Your task to perform on an android device: turn off location history Image 0: 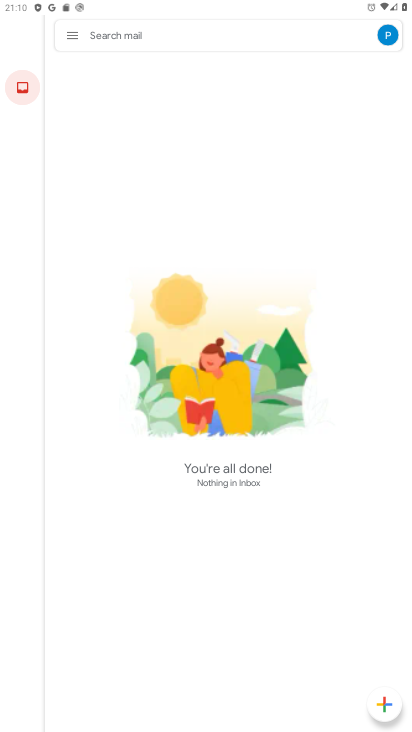
Step 0: press home button
Your task to perform on an android device: turn off location history Image 1: 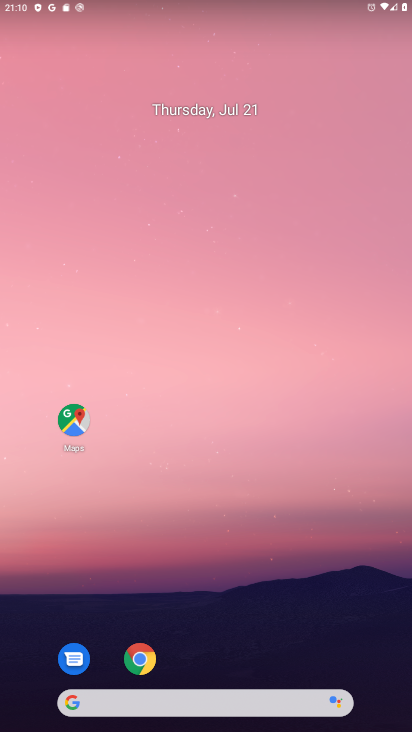
Step 1: drag from (264, 649) to (209, 2)
Your task to perform on an android device: turn off location history Image 2: 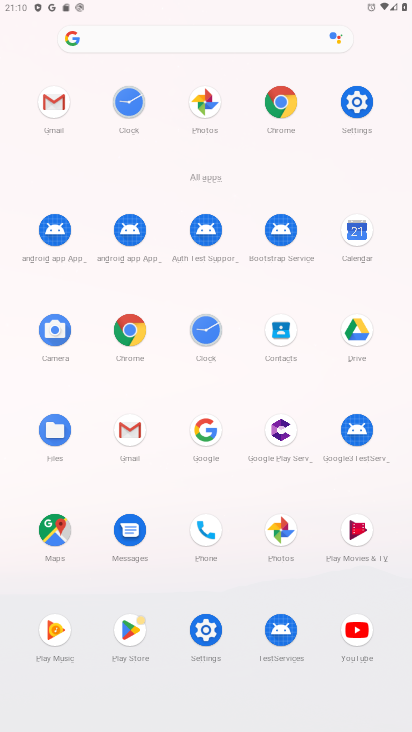
Step 2: click (47, 530)
Your task to perform on an android device: turn off location history Image 3: 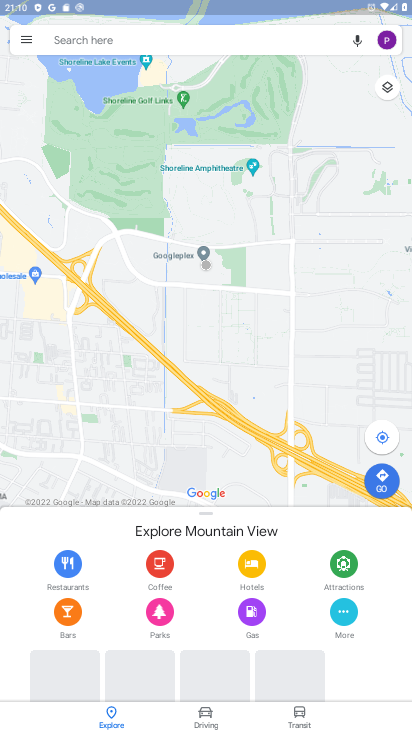
Step 3: click (23, 36)
Your task to perform on an android device: turn off location history Image 4: 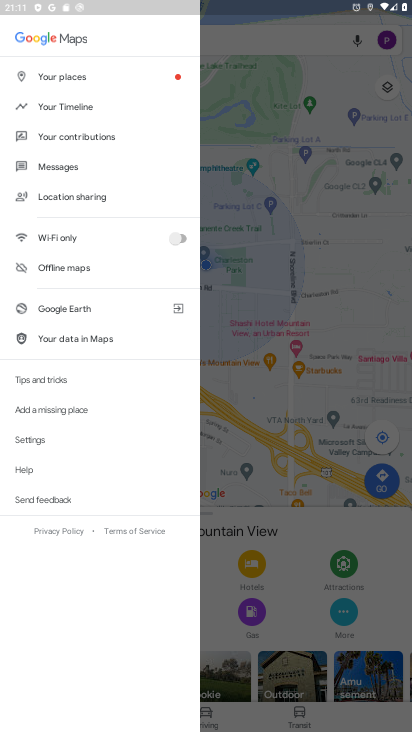
Step 4: click (56, 105)
Your task to perform on an android device: turn off location history Image 5: 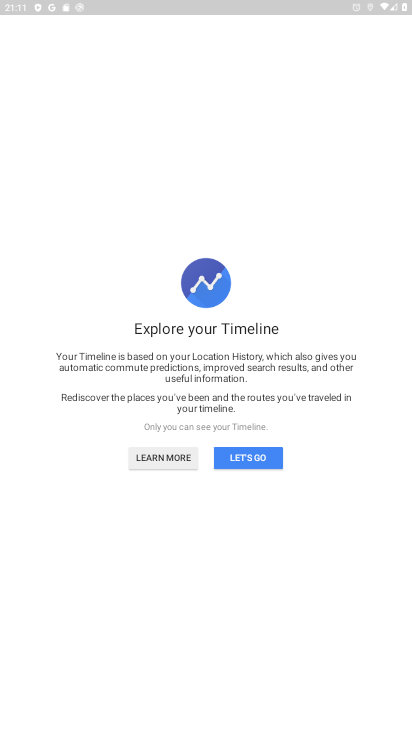
Step 5: click (271, 462)
Your task to perform on an android device: turn off location history Image 6: 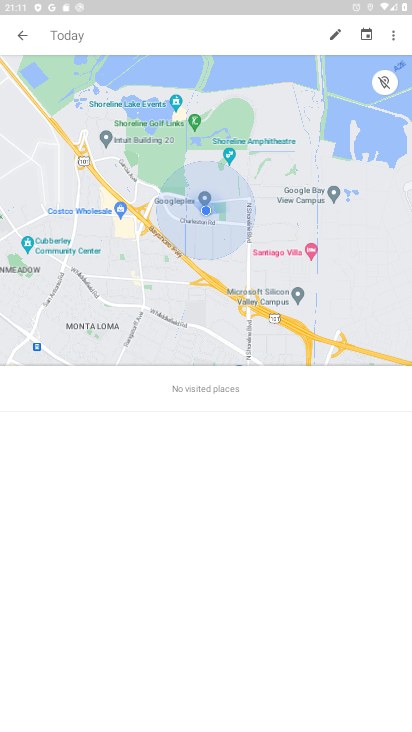
Step 6: click (393, 34)
Your task to perform on an android device: turn off location history Image 7: 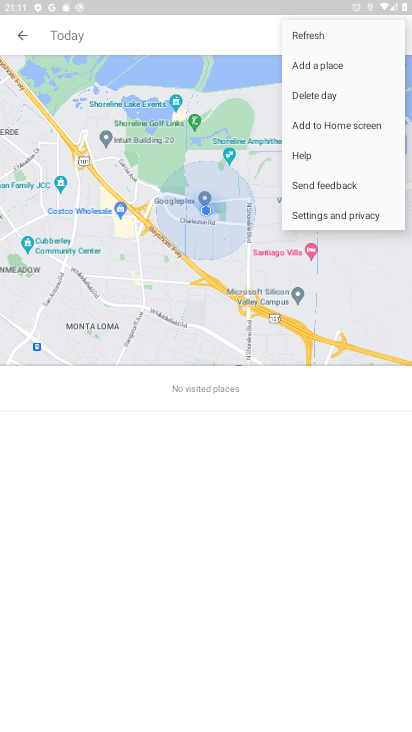
Step 7: click (302, 212)
Your task to perform on an android device: turn off location history Image 8: 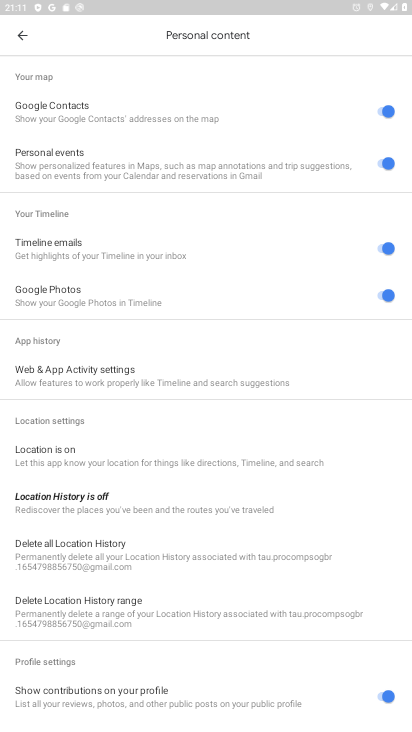
Step 8: click (69, 501)
Your task to perform on an android device: turn off location history Image 9: 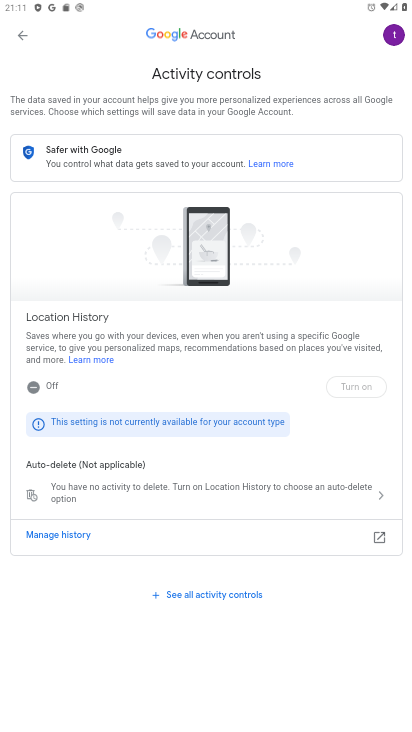
Step 9: task complete